Your task to perform on an android device: Open network settings Image 0: 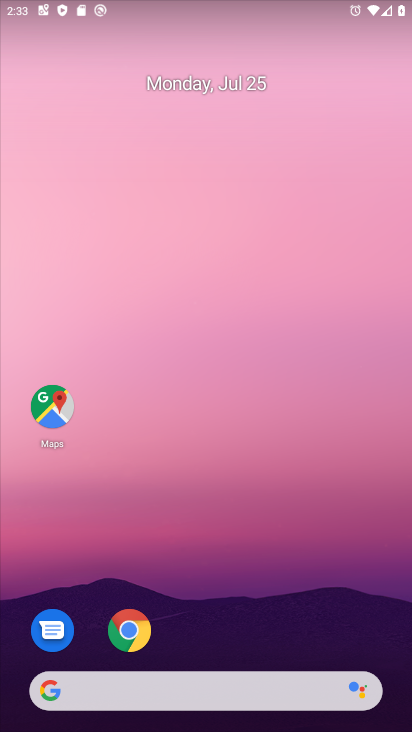
Step 0: drag from (288, 639) to (275, 187)
Your task to perform on an android device: Open network settings Image 1: 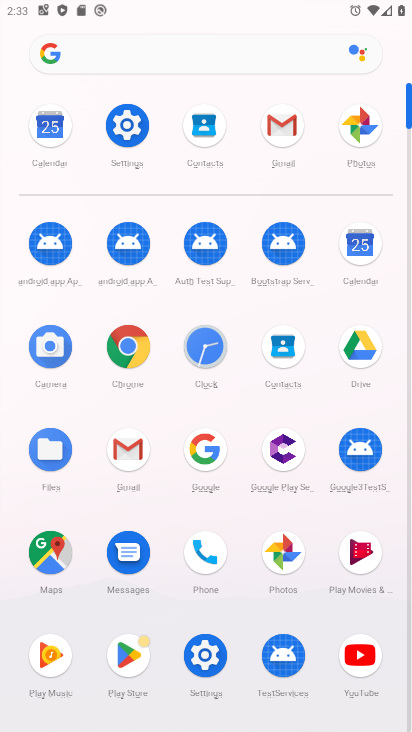
Step 1: click (110, 123)
Your task to perform on an android device: Open network settings Image 2: 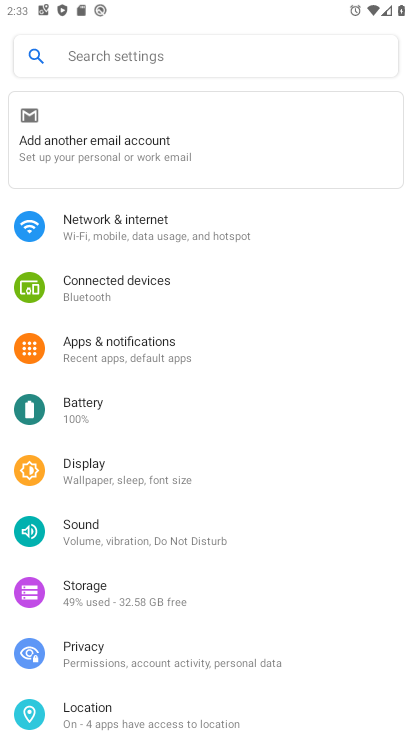
Step 2: click (154, 248)
Your task to perform on an android device: Open network settings Image 3: 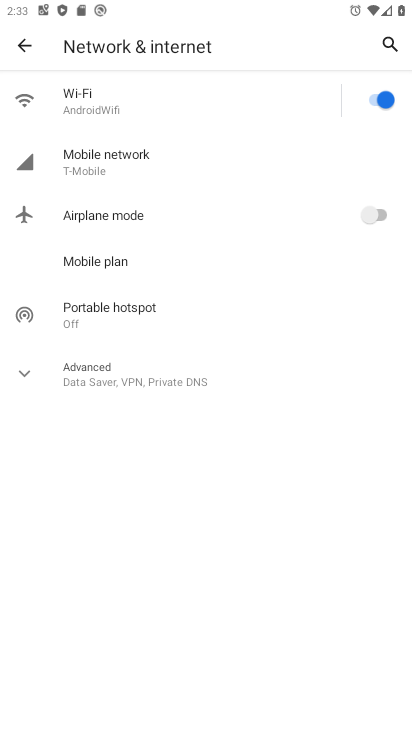
Step 3: task complete